Your task to perform on an android device: turn off airplane mode Image 0: 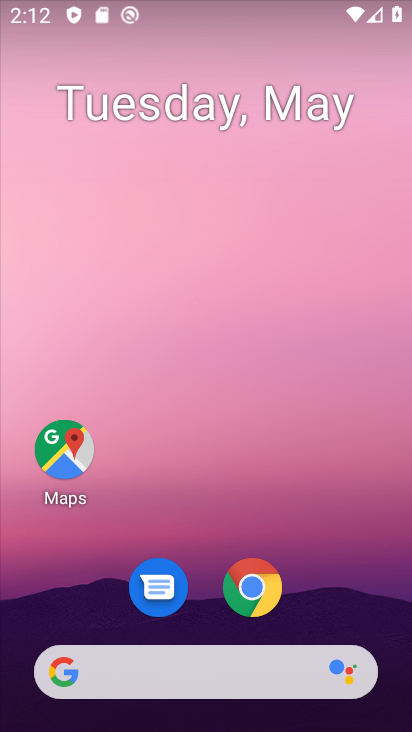
Step 0: drag from (213, 10) to (255, 637)
Your task to perform on an android device: turn off airplane mode Image 1: 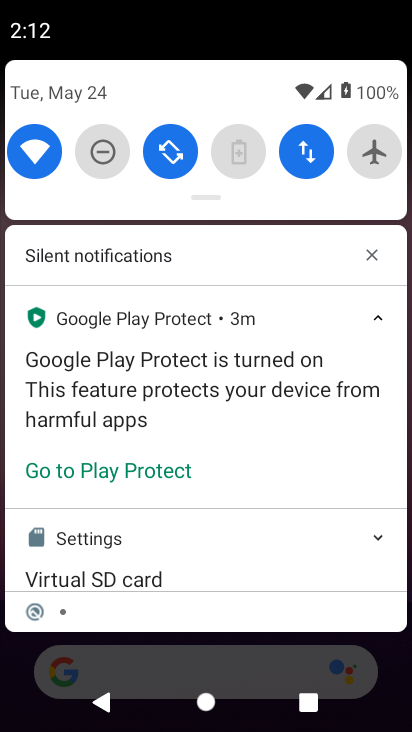
Step 1: task complete